Your task to perform on an android device: turn off priority inbox in the gmail app Image 0: 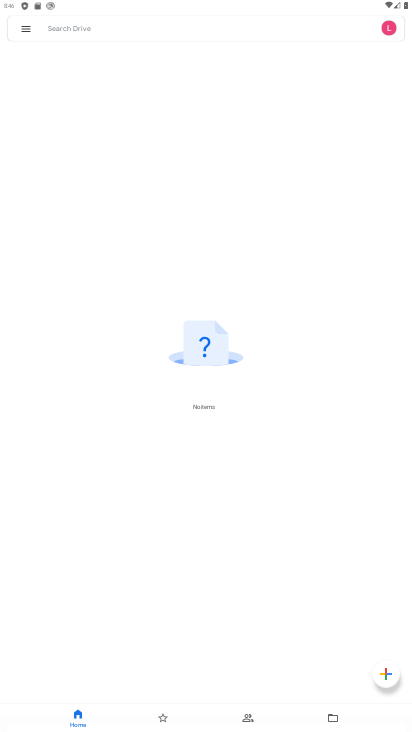
Step 0: press home button
Your task to perform on an android device: turn off priority inbox in the gmail app Image 1: 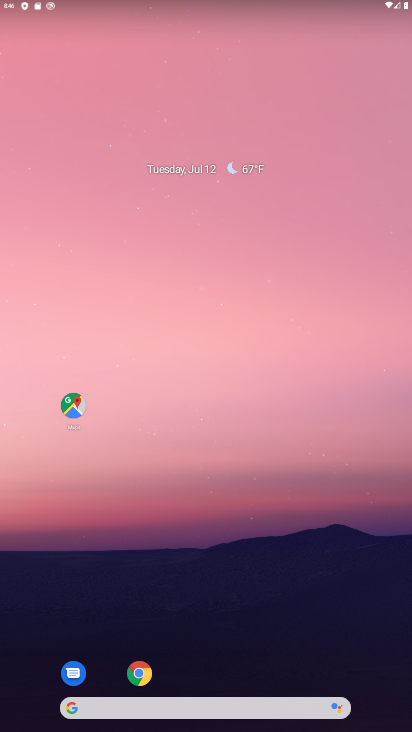
Step 1: drag from (189, 682) to (212, 112)
Your task to perform on an android device: turn off priority inbox in the gmail app Image 2: 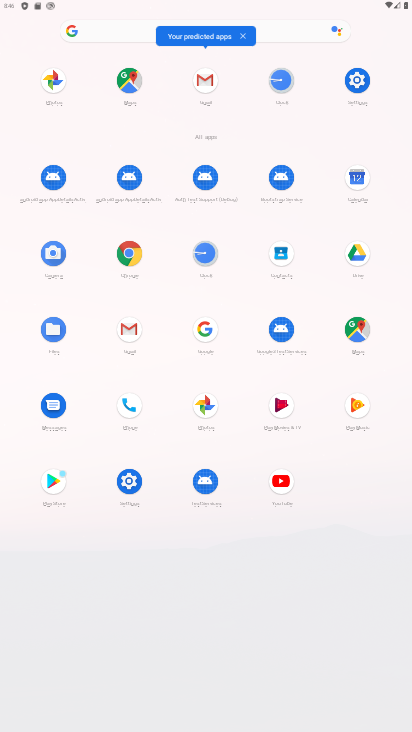
Step 2: click (123, 321)
Your task to perform on an android device: turn off priority inbox in the gmail app Image 3: 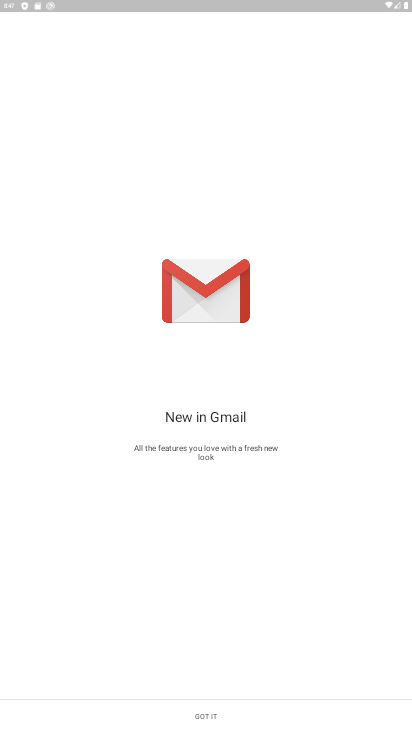
Step 3: click (228, 700)
Your task to perform on an android device: turn off priority inbox in the gmail app Image 4: 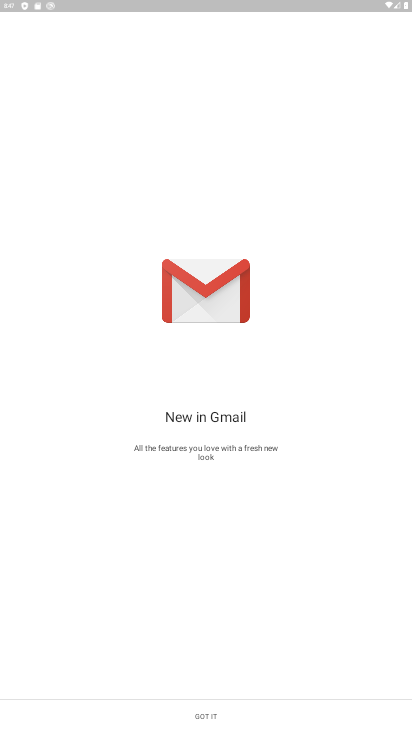
Step 4: click (209, 711)
Your task to perform on an android device: turn off priority inbox in the gmail app Image 5: 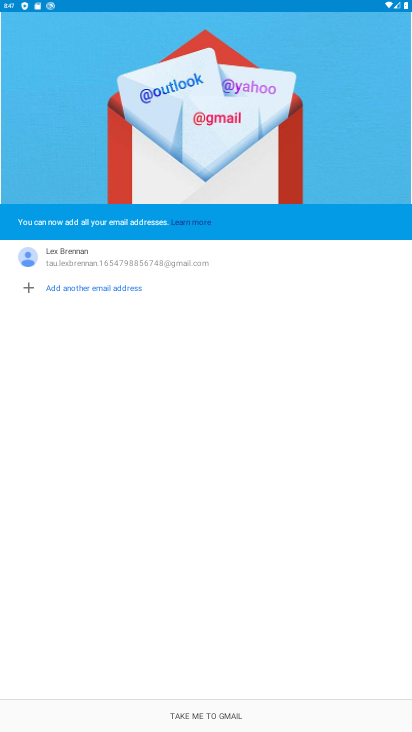
Step 5: click (209, 711)
Your task to perform on an android device: turn off priority inbox in the gmail app Image 6: 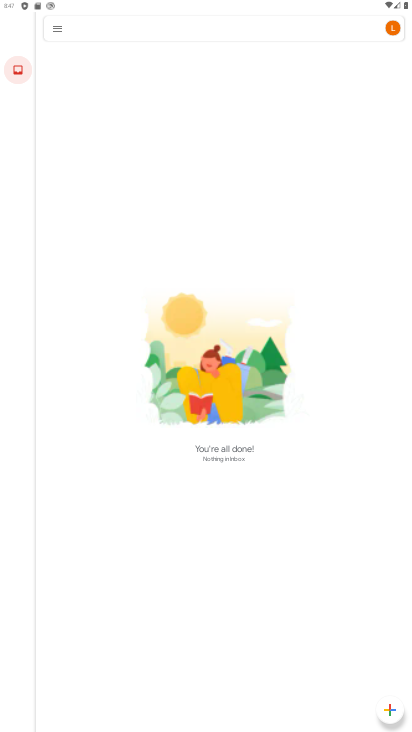
Step 6: click (62, 34)
Your task to perform on an android device: turn off priority inbox in the gmail app Image 7: 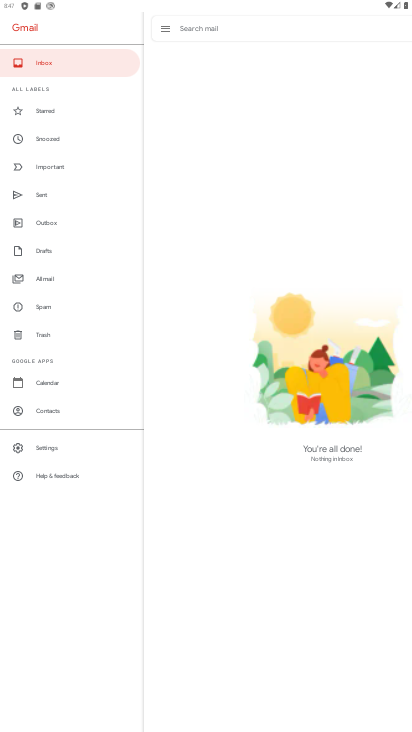
Step 7: click (65, 440)
Your task to perform on an android device: turn off priority inbox in the gmail app Image 8: 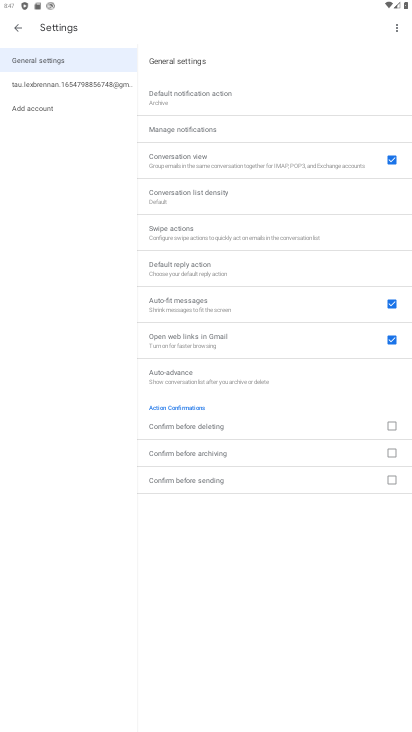
Step 8: click (93, 84)
Your task to perform on an android device: turn off priority inbox in the gmail app Image 9: 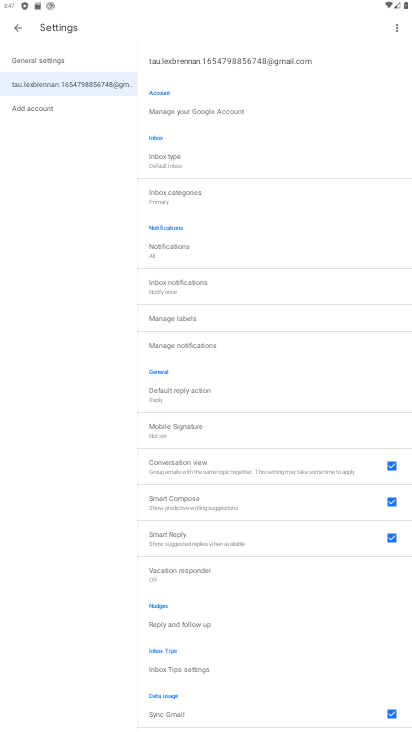
Step 9: click (168, 162)
Your task to perform on an android device: turn off priority inbox in the gmail app Image 10: 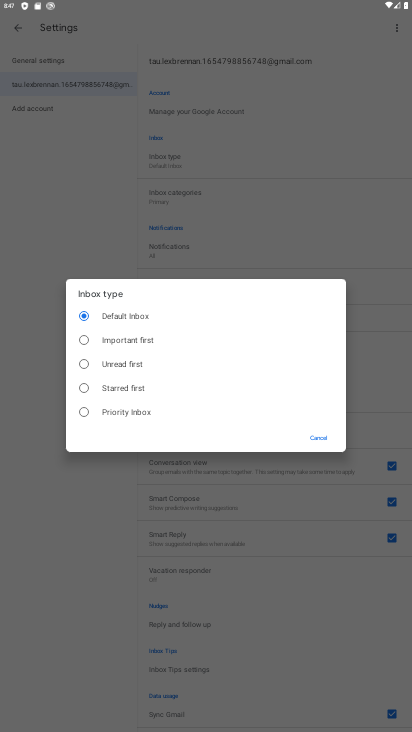
Step 10: task complete